Your task to perform on an android device: turn off location history Image 0: 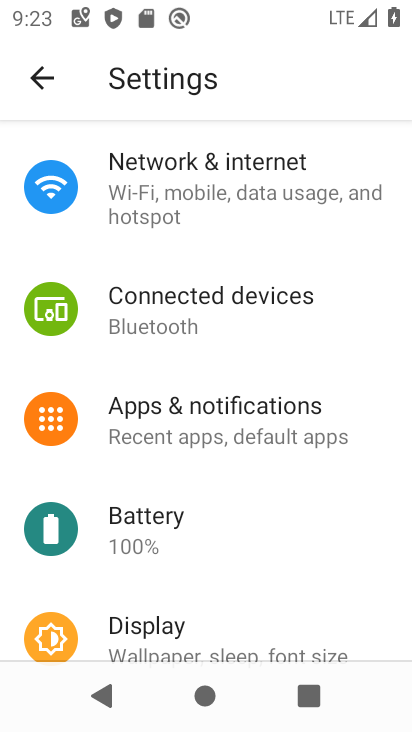
Step 0: press home button
Your task to perform on an android device: turn off location history Image 1: 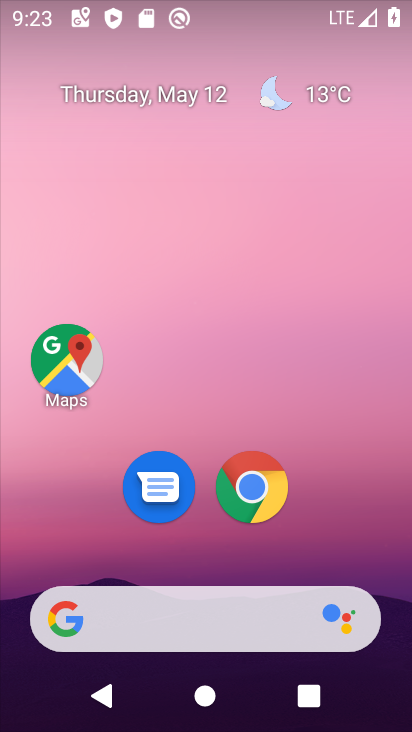
Step 1: click (62, 363)
Your task to perform on an android device: turn off location history Image 2: 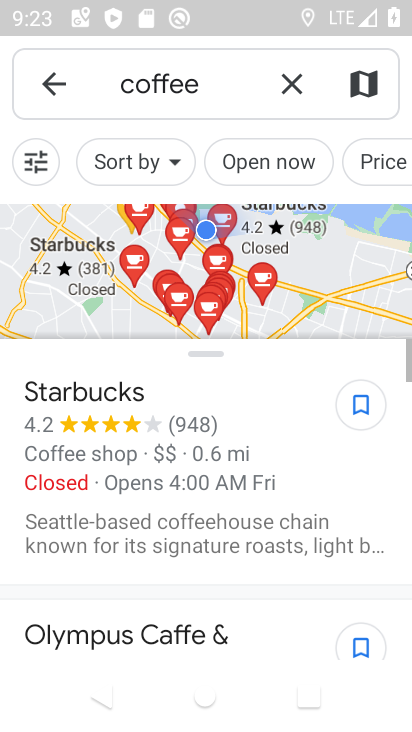
Step 2: click (290, 81)
Your task to perform on an android device: turn off location history Image 3: 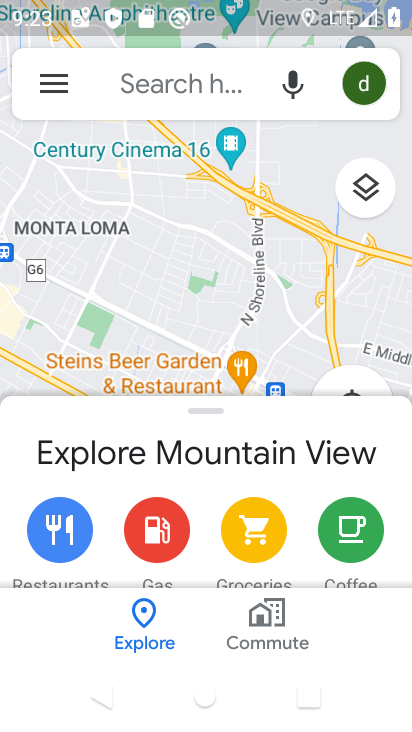
Step 3: click (45, 86)
Your task to perform on an android device: turn off location history Image 4: 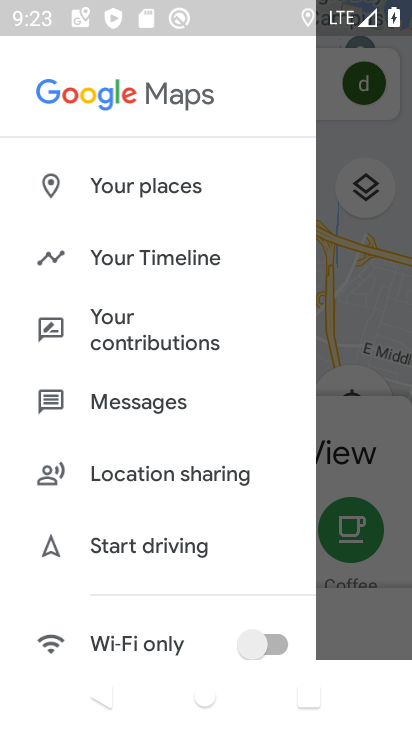
Step 4: click (134, 268)
Your task to perform on an android device: turn off location history Image 5: 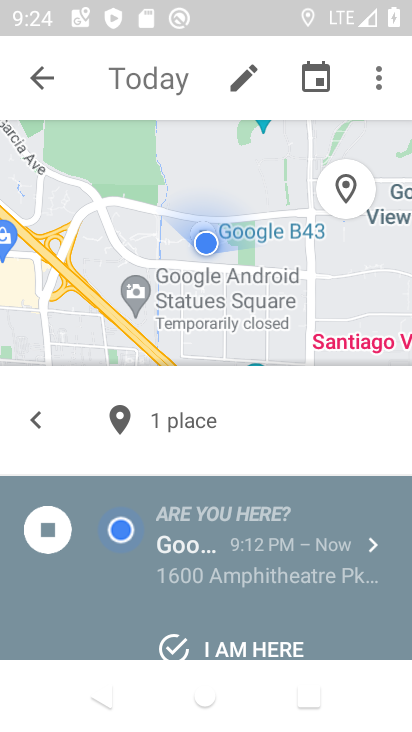
Step 5: click (379, 79)
Your task to perform on an android device: turn off location history Image 6: 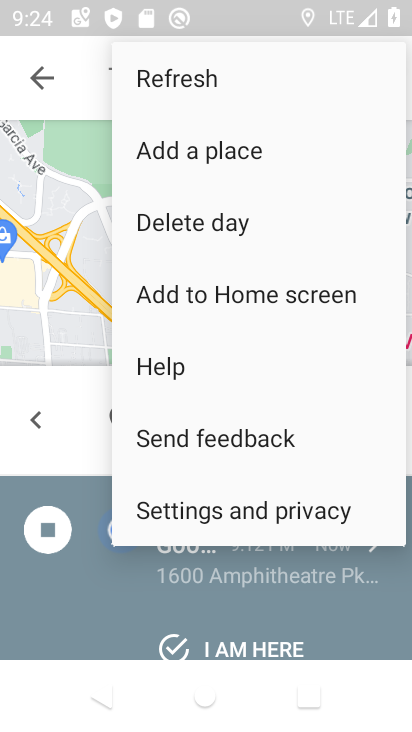
Step 6: click (217, 514)
Your task to perform on an android device: turn off location history Image 7: 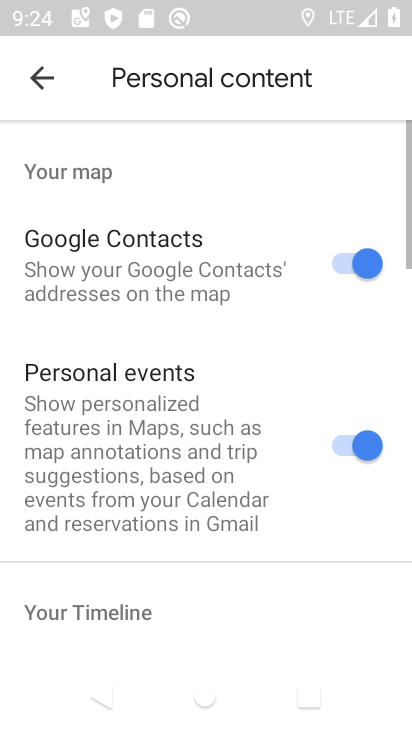
Step 7: drag from (211, 556) to (195, 18)
Your task to perform on an android device: turn off location history Image 8: 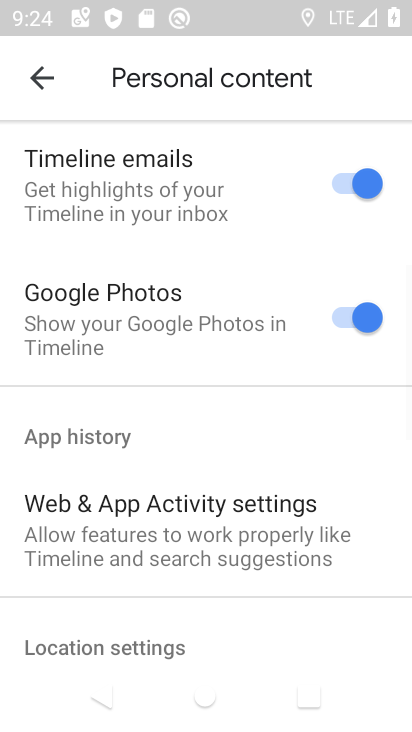
Step 8: drag from (160, 554) to (119, 25)
Your task to perform on an android device: turn off location history Image 9: 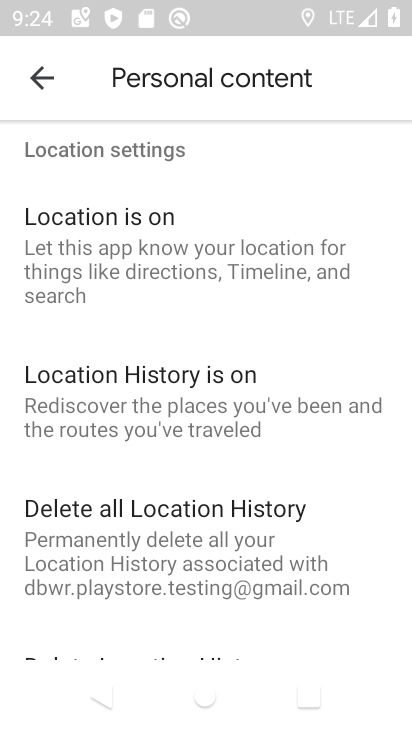
Step 9: click (135, 394)
Your task to perform on an android device: turn off location history Image 10: 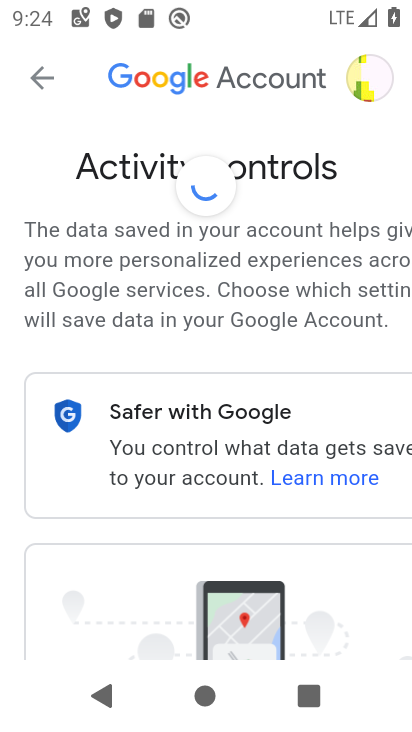
Step 10: drag from (176, 527) to (173, 89)
Your task to perform on an android device: turn off location history Image 11: 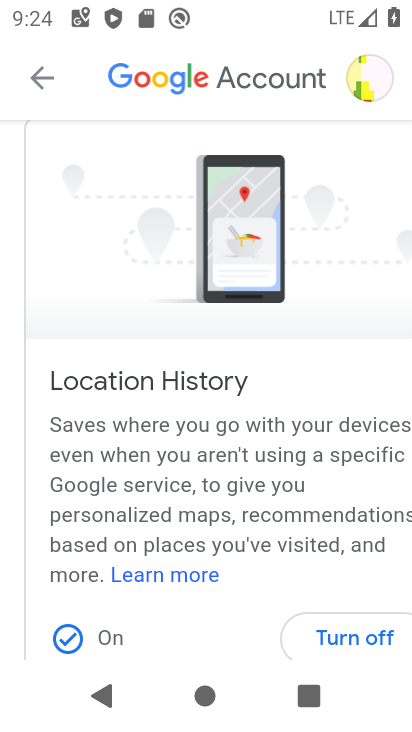
Step 11: click (343, 640)
Your task to perform on an android device: turn off location history Image 12: 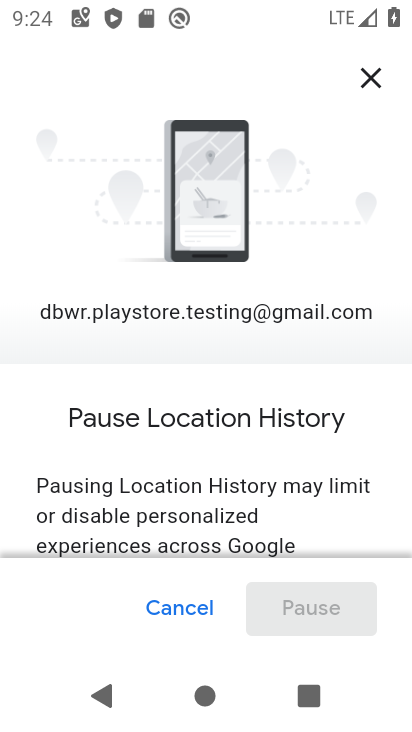
Step 12: drag from (167, 510) to (163, 4)
Your task to perform on an android device: turn off location history Image 13: 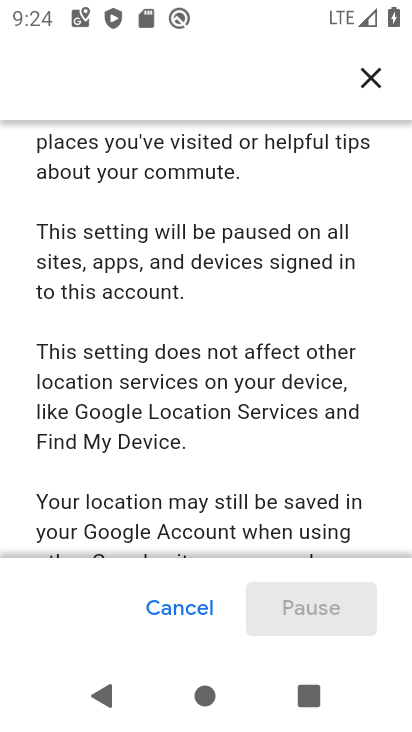
Step 13: drag from (201, 447) to (136, 7)
Your task to perform on an android device: turn off location history Image 14: 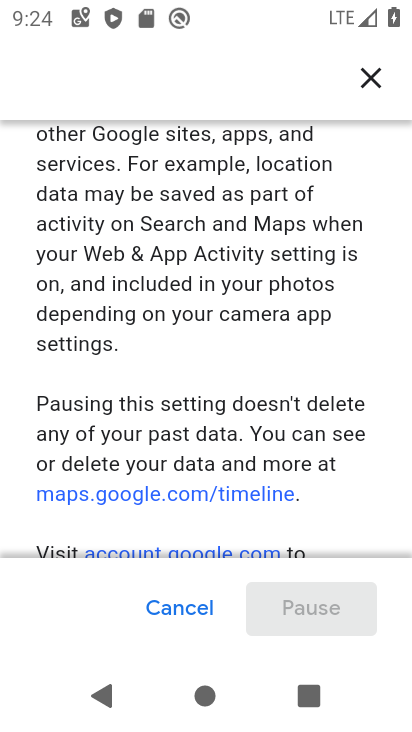
Step 14: drag from (193, 465) to (146, 74)
Your task to perform on an android device: turn off location history Image 15: 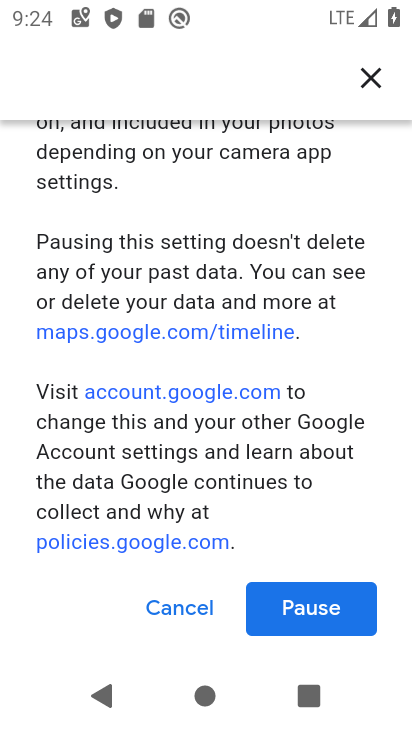
Step 15: click (317, 620)
Your task to perform on an android device: turn off location history Image 16: 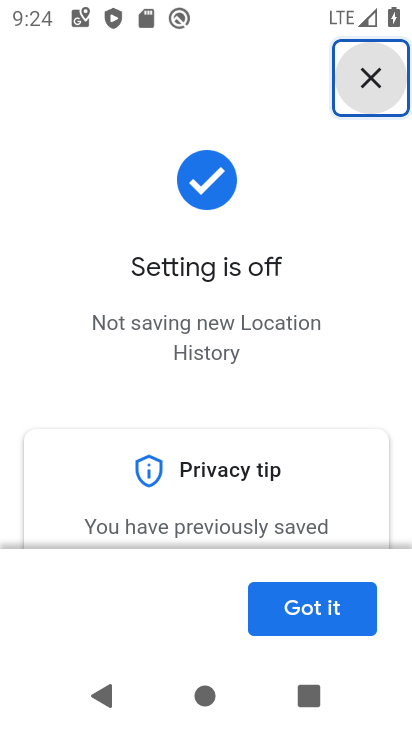
Step 16: click (317, 619)
Your task to perform on an android device: turn off location history Image 17: 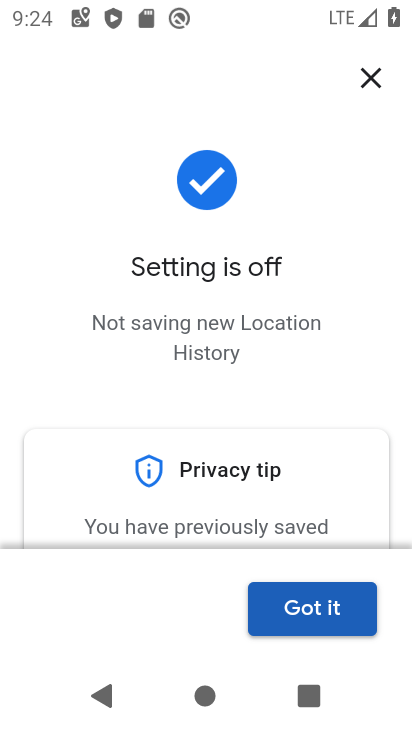
Step 17: drag from (283, 509) to (287, 375)
Your task to perform on an android device: turn off location history Image 18: 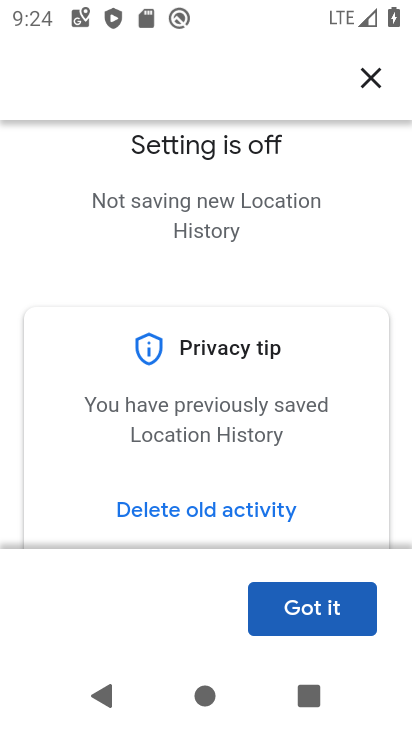
Step 18: click (293, 611)
Your task to perform on an android device: turn off location history Image 19: 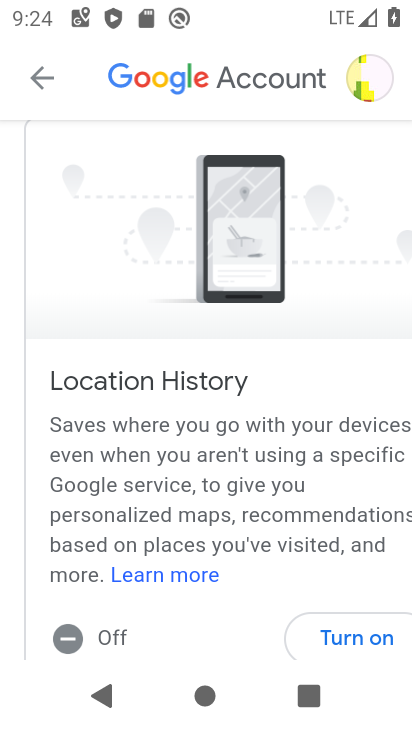
Step 19: task complete